Your task to perform on an android device: clear history in the chrome app Image 0: 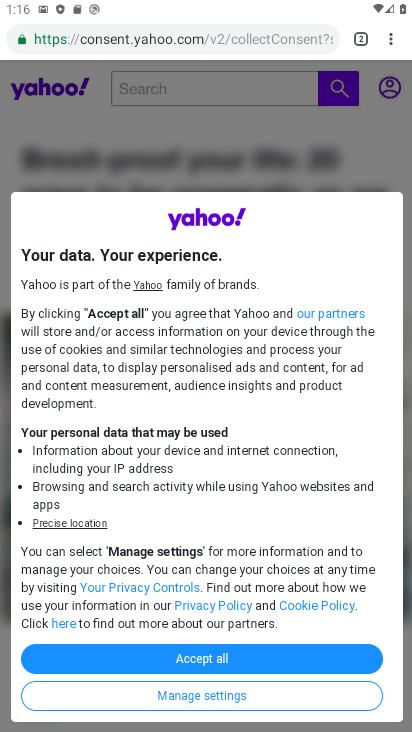
Step 0: press home button
Your task to perform on an android device: clear history in the chrome app Image 1: 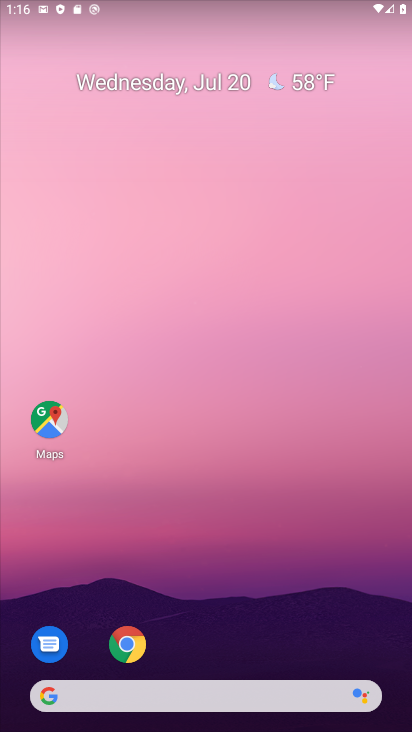
Step 1: click (127, 643)
Your task to perform on an android device: clear history in the chrome app Image 2: 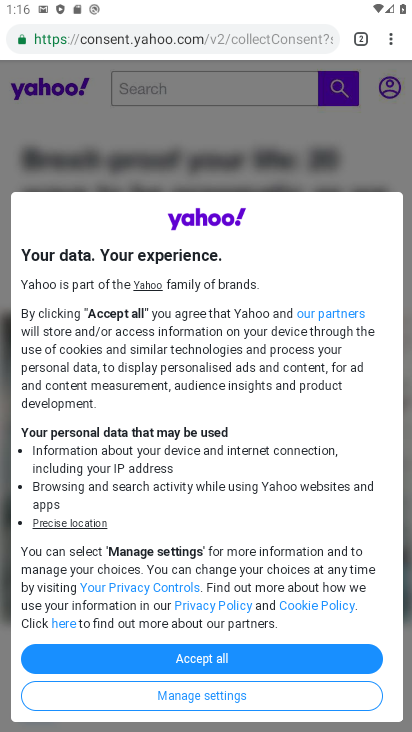
Step 2: click (386, 37)
Your task to perform on an android device: clear history in the chrome app Image 3: 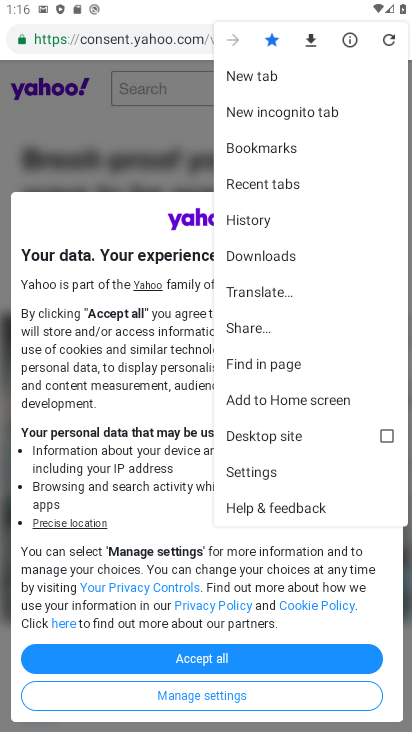
Step 3: click (274, 219)
Your task to perform on an android device: clear history in the chrome app Image 4: 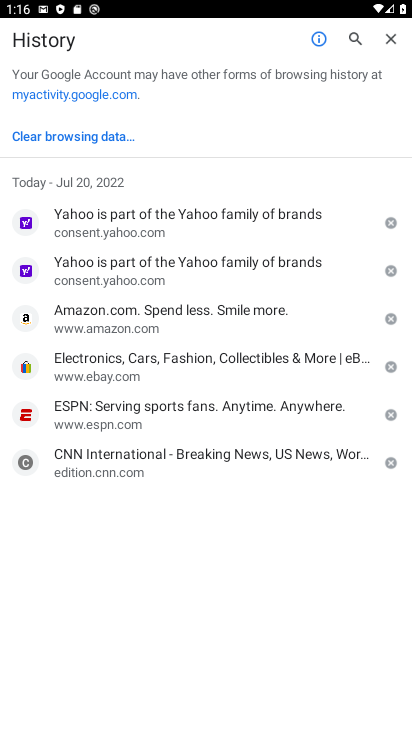
Step 4: click (96, 137)
Your task to perform on an android device: clear history in the chrome app Image 5: 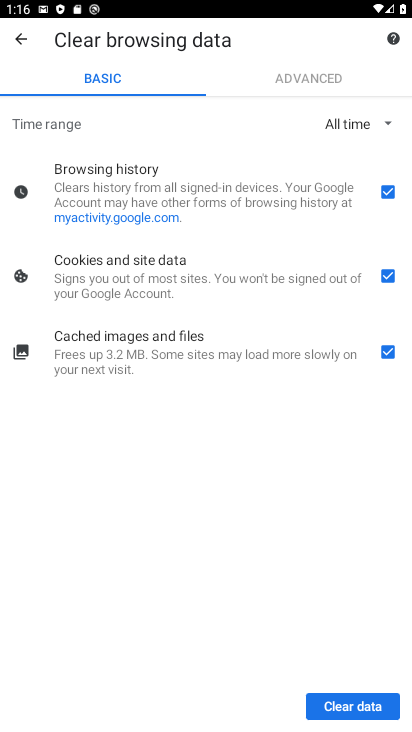
Step 5: click (388, 281)
Your task to perform on an android device: clear history in the chrome app Image 6: 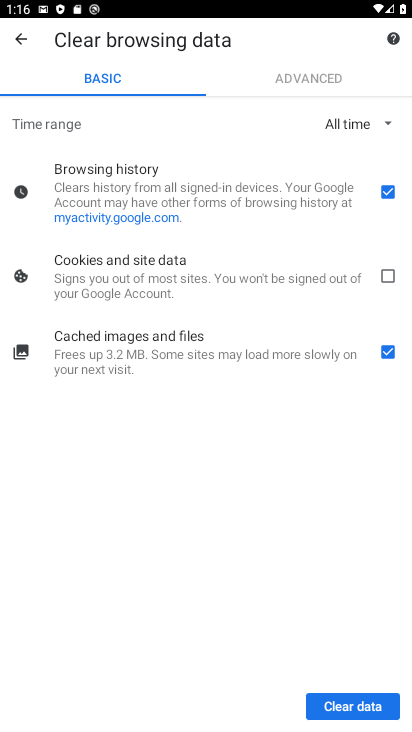
Step 6: click (385, 348)
Your task to perform on an android device: clear history in the chrome app Image 7: 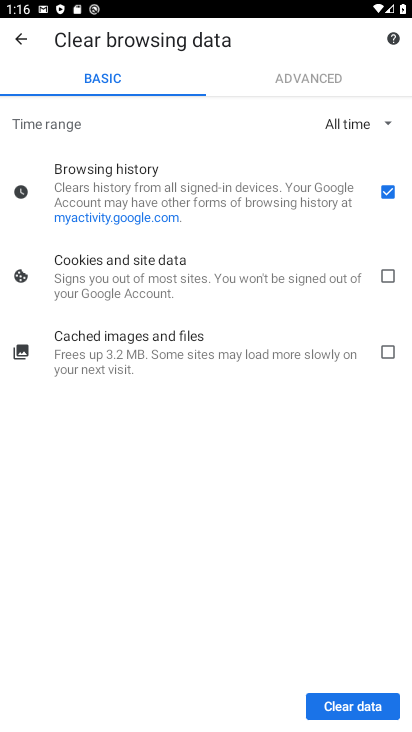
Step 7: click (344, 692)
Your task to perform on an android device: clear history in the chrome app Image 8: 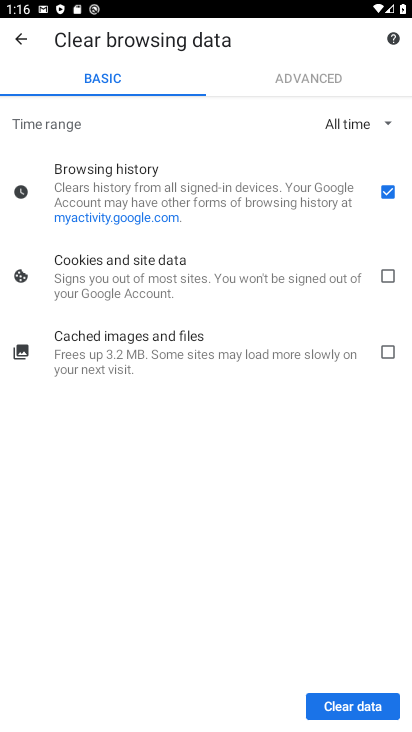
Step 8: click (337, 703)
Your task to perform on an android device: clear history in the chrome app Image 9: 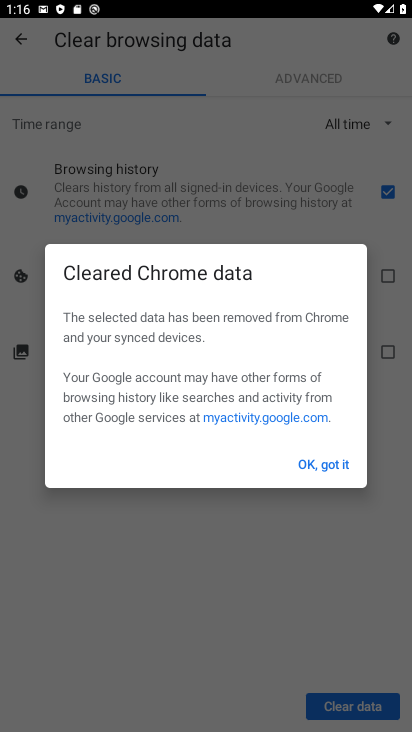
Step 9: click (315, 459)
Your task to perform on an android device: clear history in the chrome app Image 10: 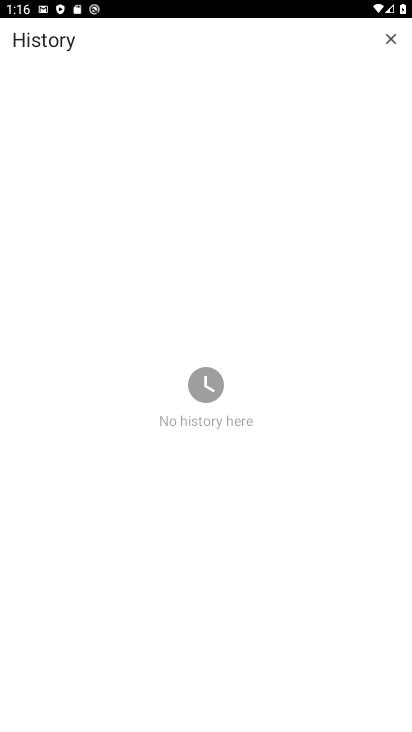
Step 10: task complete